Your task to perform on an android device: What's on my calendar tomorrow? Image 0: 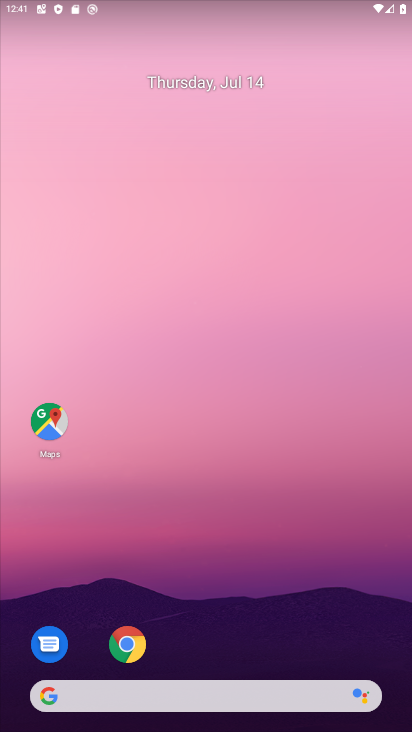
Step 0: drag from (239, 678) to (225, 101)
Your task to perform on an android device: What's on my calendar tomorrow? Image 1: 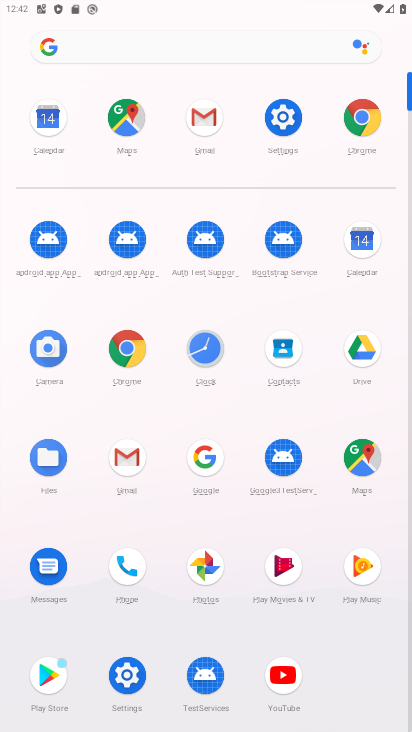
Step 1: click (377, 241)
Your task to perform on an android device: What's on my calendar tomorrow? Image 2: 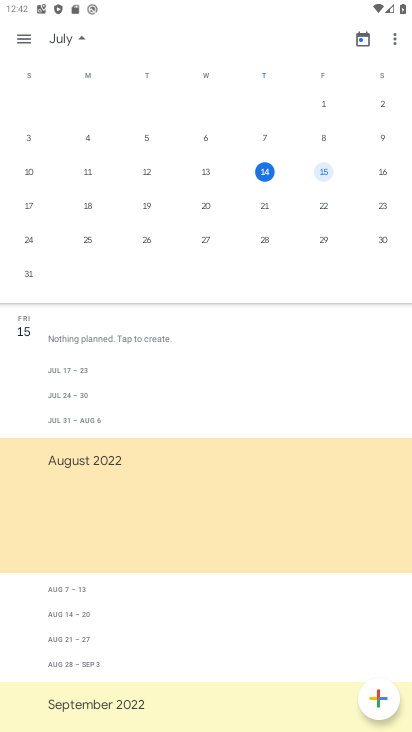
Step 2: task complete